Your task to perform on an android device: turn on showing notifications on the lock screen Image 0: 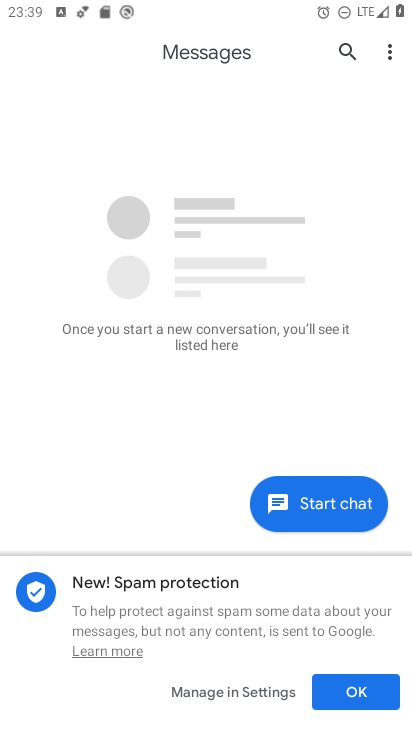
Step 0: press home button
Your task to perform on an android device: turn on showing notifications on the lock screen Image 1: 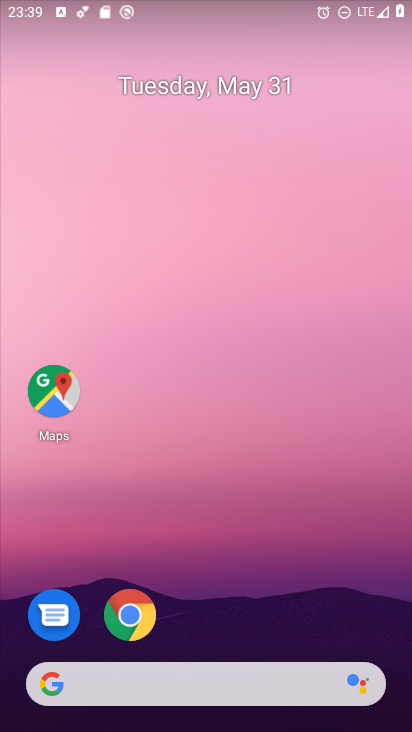
Step 1: drag from (352, 600) to (247, 45)
Your task to perform on an android device: turn on showing notifications on the lock screen Image 2: 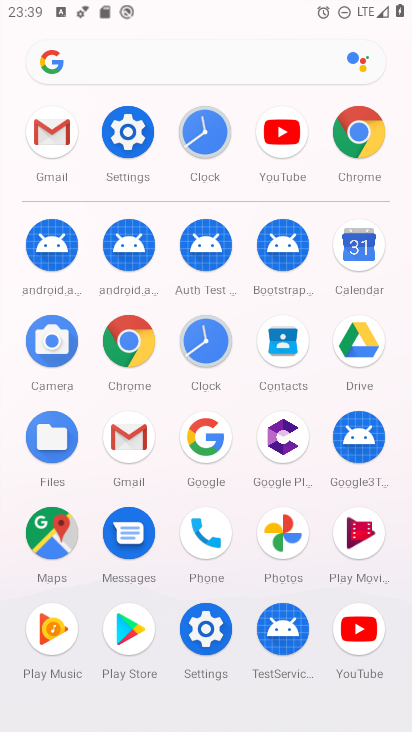
Step 2: click (208, 629)
Your task to perform on an android device: turn on showing notifications on the lock screen Image 3: 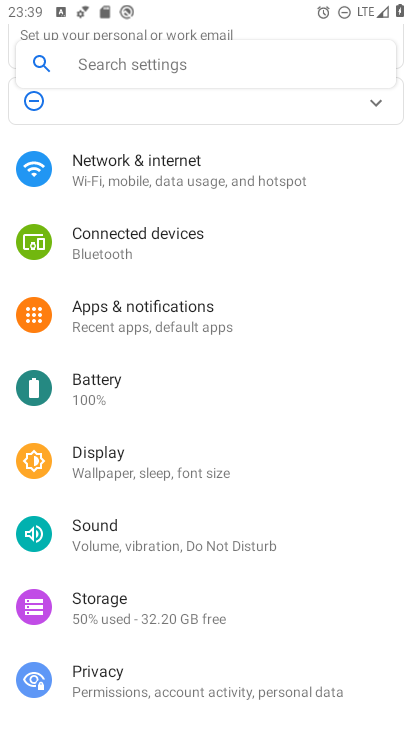
Step 3: click (119, 309)
Your task to perform on an android device: turn on showing notifications on the lock screen Image 4: 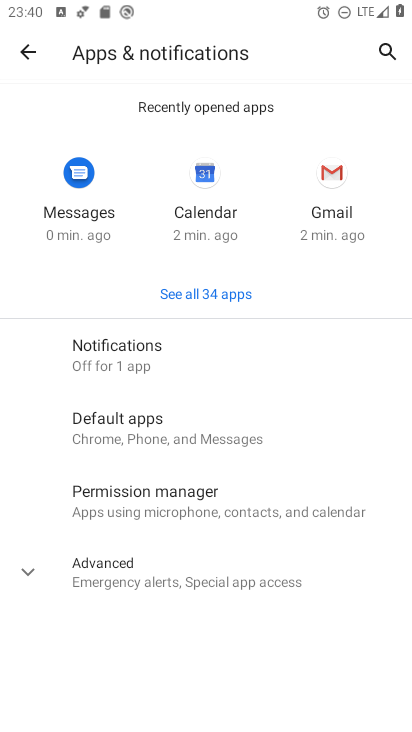
Step 4: click (146, 355)
Your task to perform on an android device: turn on showing notifications on the lock screen Image 5: 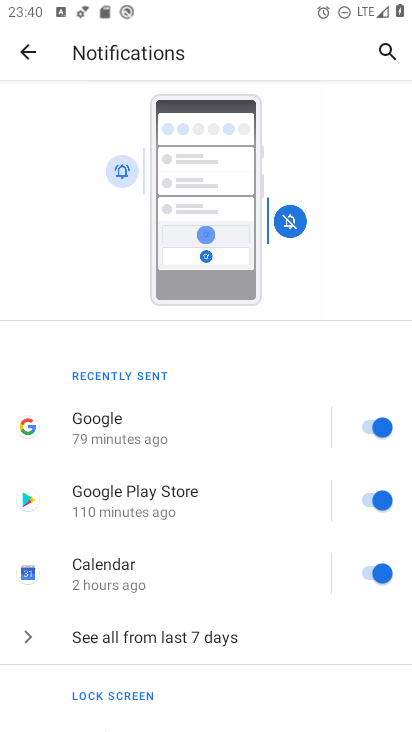
Step 5: drag from (269, 650) to (318, 237)
Your task to perform on an android device: turn on showing notifications on the lock screen Image 6: 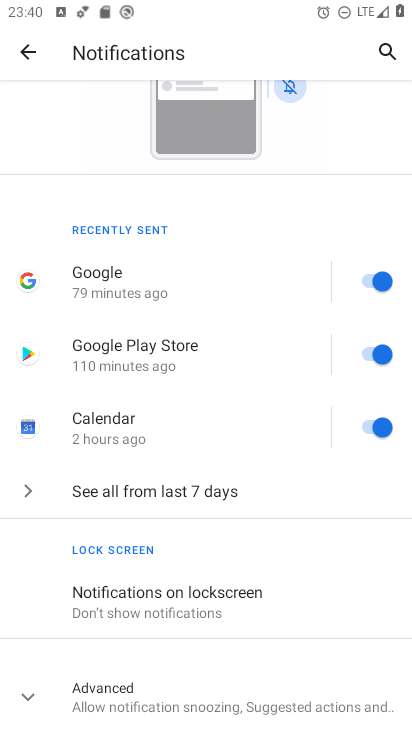
Step 6: click (173, 597)
Your task to perform on an android device: turn on showing notifications on the lock screen Image 7: 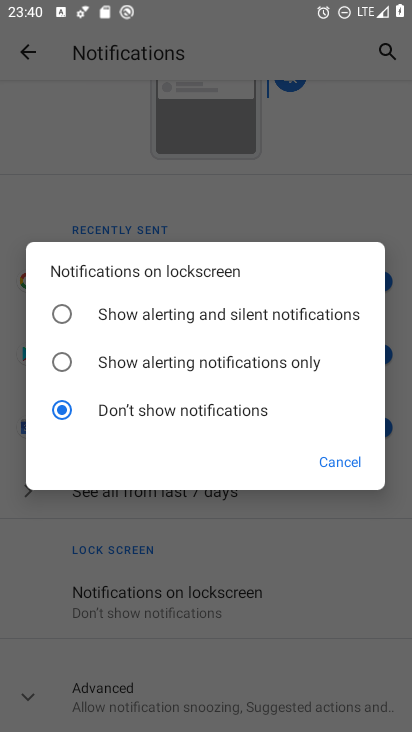
Step 7: click (62, 308)
Your task to perform on an android device: turn on showing notifications on the lock screen Image 8: 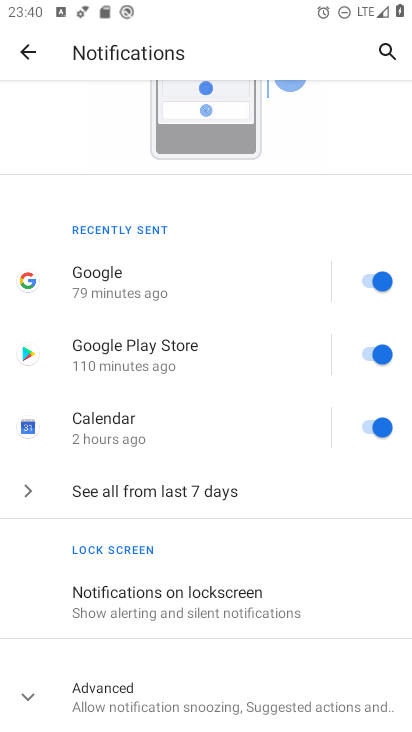
Step 8: task complete